Your task to perform on an android device: Go to eBay Image 0: 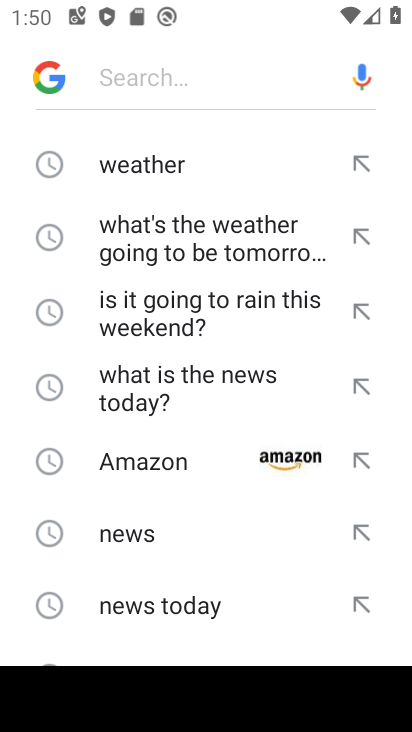
Step 0: press home button
Your task to perform on an android device: Go to eBay Image 1: 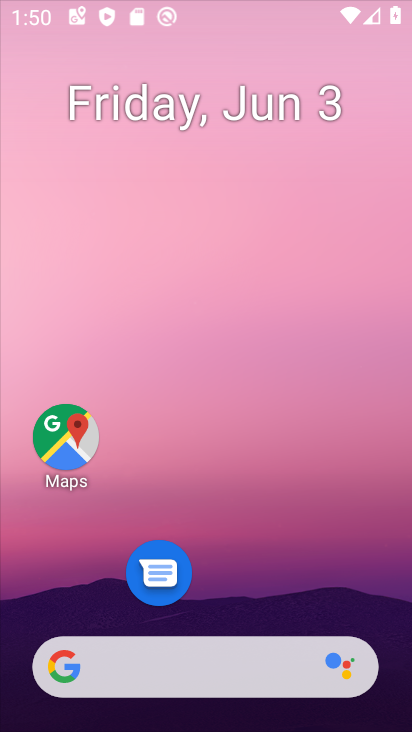
Step 1: drag from (235, 649) to (285, 156)
Your task to perform on an android device: Go to eBay Image 2: 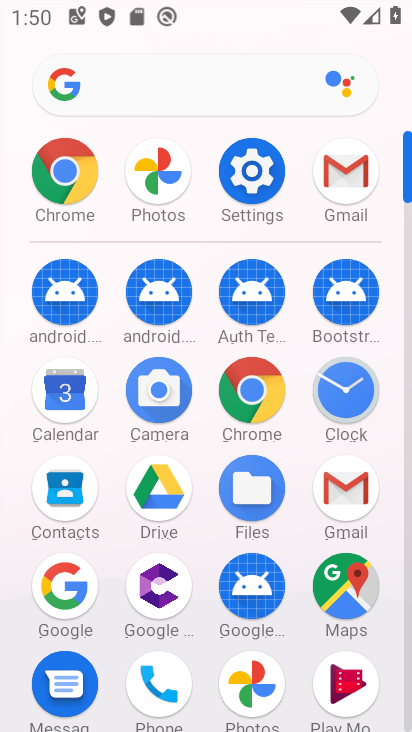
Step 2: click (257, 391)
Your task to perform on an android device: Go to eBay Image 3: 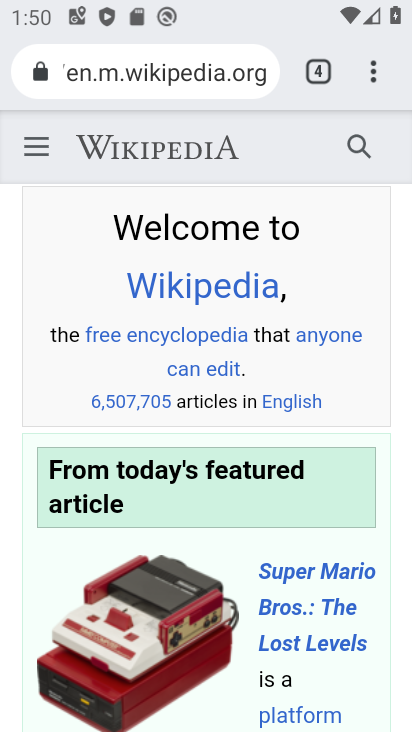
Step 3: click (232, 74)
Your task to perform on an android device: Go to eBay Image 4: 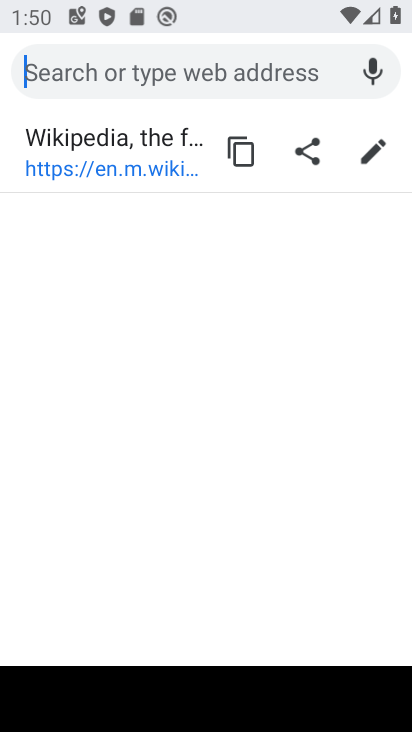
Step 4: type "ebay"
Your task to perform on an android device: Go to eBay Image 5: 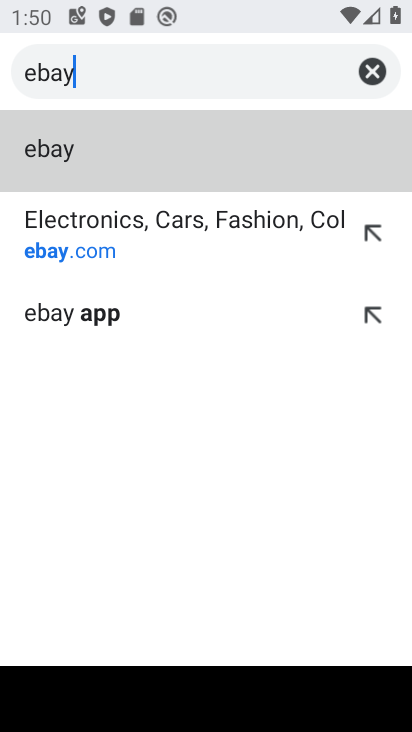
Step 5: click (295, 210)
Your task to perform on an android device: Go to eBay Image 6: 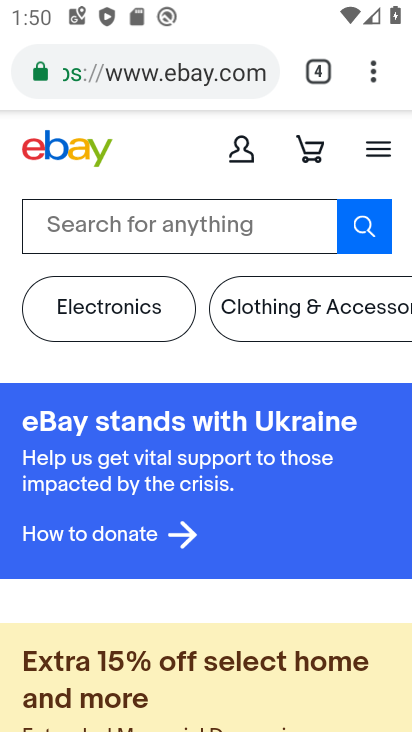
Step 6: task complete